Your task to perform on an android device: add a label to a message in the gmail app Image 0: 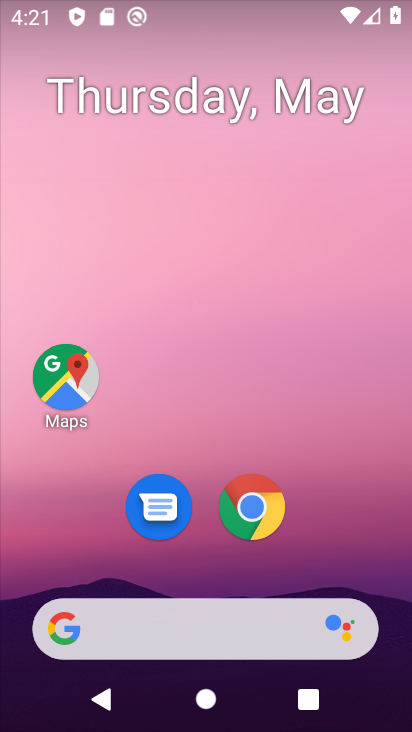
Step 0: drag from (316, 585) to (159, 19)
Your task to perform on an android device: add a label to a message in the gmail app Image 1: 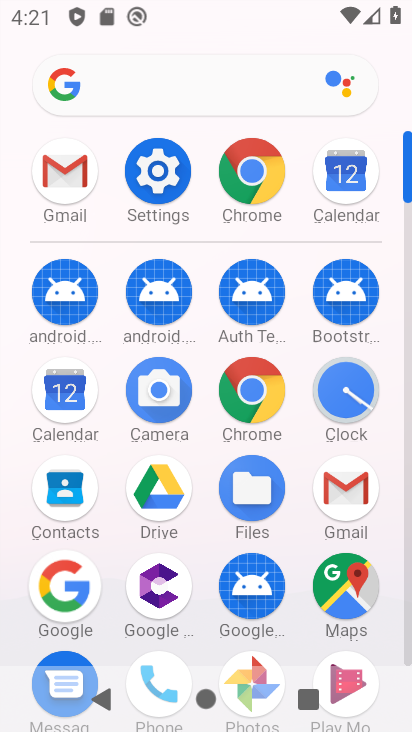
Step 1: click (340, 484)
Your task to perform on an android device: add a label to a message in the gmail app Image 2: 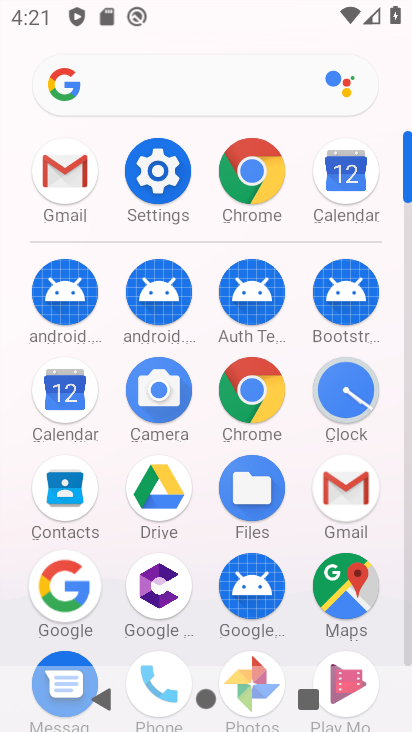
Step 2: click (340, 484)
Your task to perform on an android device: add a label to a message in the gmail app Image 3: 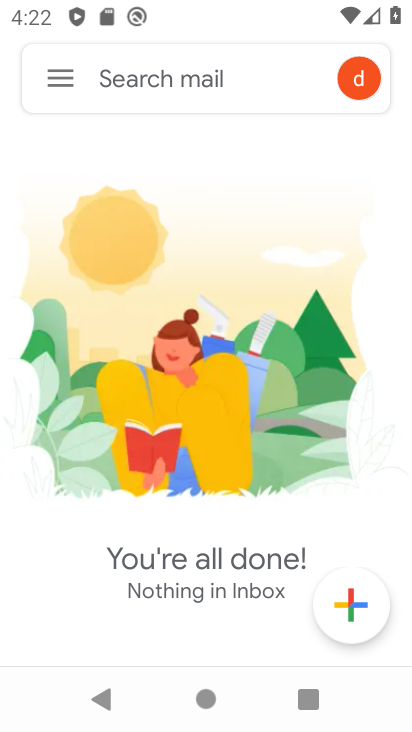
Step 3: click (57, 81)
Your task to perform on an android device: add a label to a message in the gmail app Image 4: 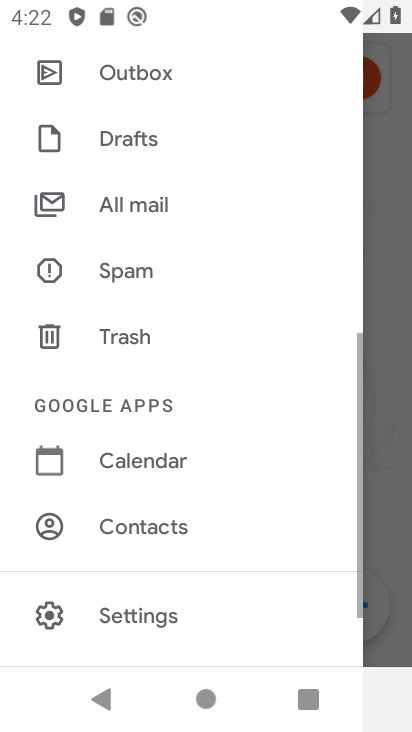
Step 4: click (138, 204)
Your task to perform on an android device: add a label to a message in the gmail app Image 5: 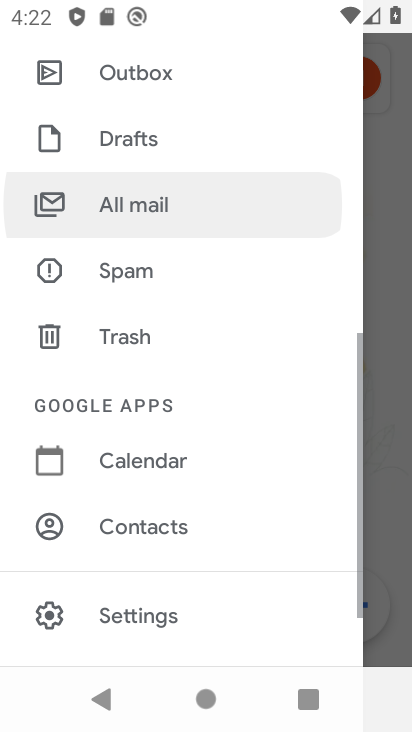
Step 5: click (138, 204)
Your task to perform on an android device: add a label to a message in the gmail app Image 6: 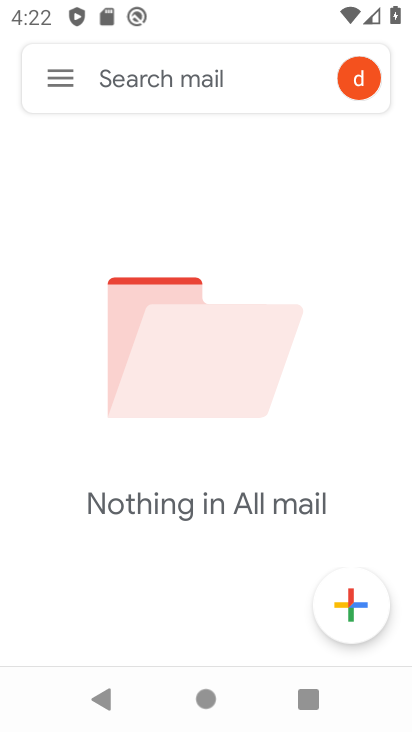
Step 6: task complete